Your task to perform on an android device: Open Google Maps Image 0: 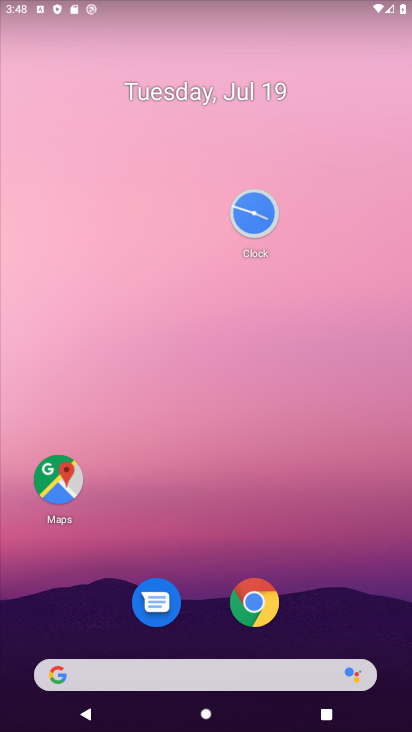
Step 0: drag from (340, 585) to (351, 140)
Your task to perform on an android device: Open Google Maps Image 1: 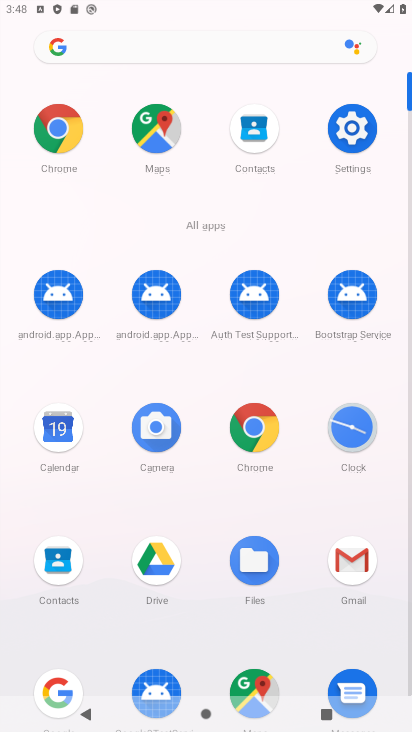
Step 1: drag from (172, 570) to (222, 257)
Your task to perform on an android device: Open Google Maps Image 2: 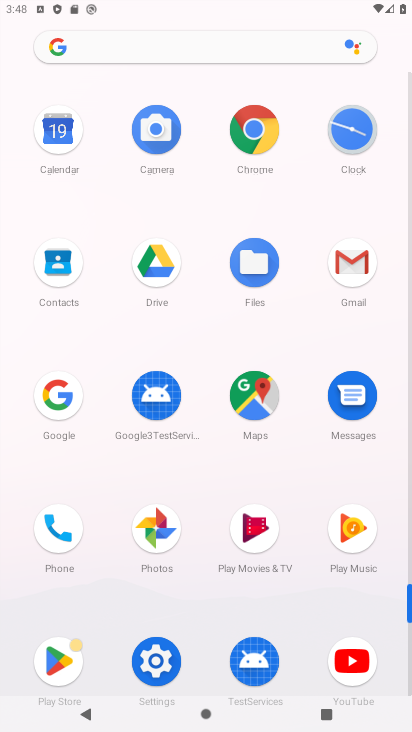
Step 2: click (58, 405)
Your task to perform on an android device: Open Google Maps Image 3: 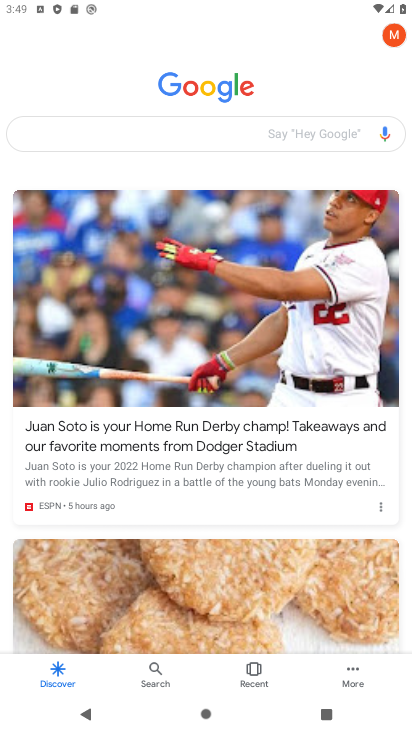
Step 3: task complete